Your task to perform on an android device: visit the assistant section in the google photos Image 0: 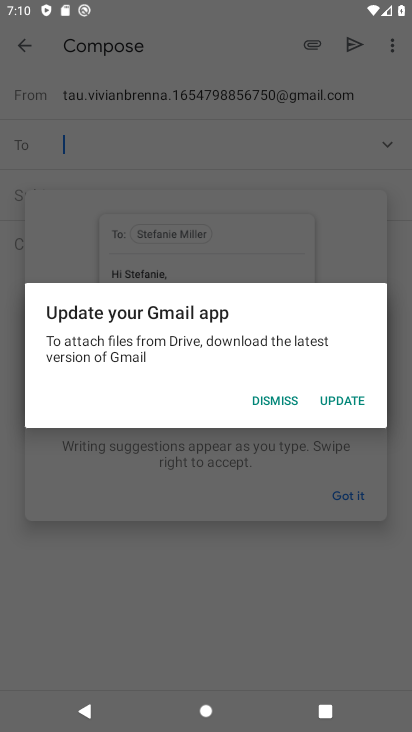
Step 0: click (271, 388)
Your task to perform on an android device: visit the assistant section in the google photos Image 1: 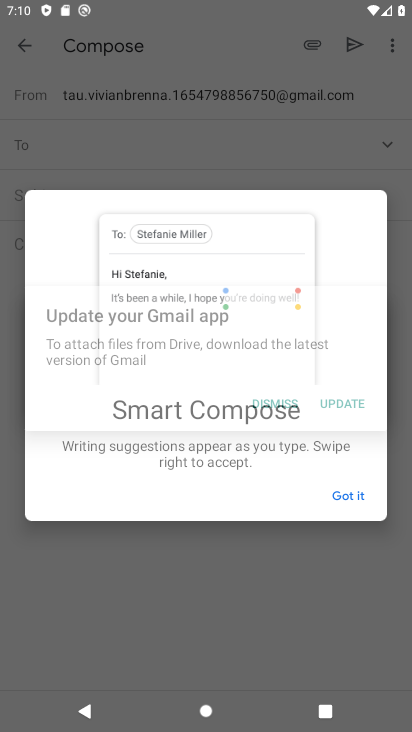
Step 1: click (275, 396)
Your task to perform on an android device: visit the assistant section in the google photos Image 2: 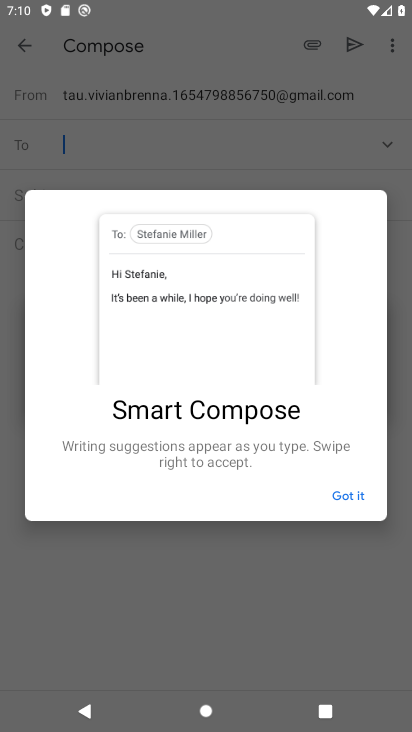
Step 2: task complete